Your task to perform on an android device: When is my next meeting? Image 0: 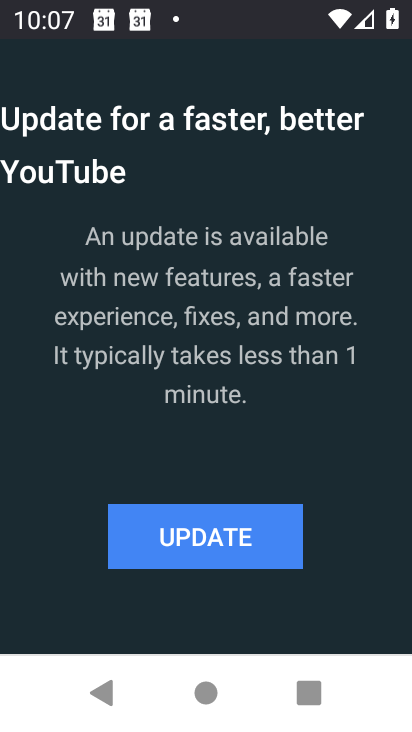
Step 0: press back button
Your task to perform on an android device: When is my next meeting? Image 1: 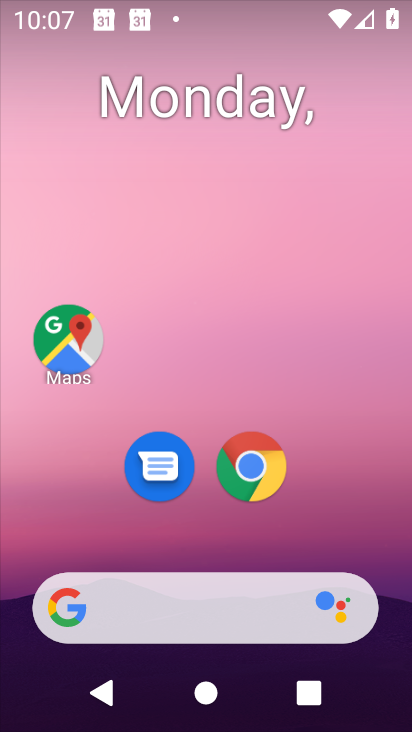
Step 1: drag from (322, 552) to (195, 100)
Your task to perform on an android device: When is my next meeting? Image 2: 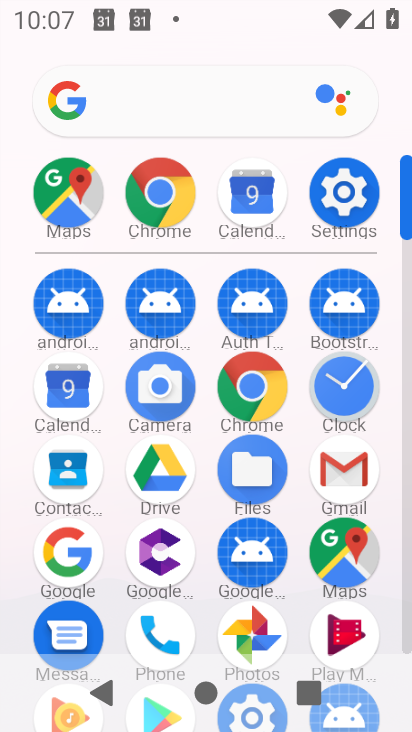
Step 2: click (58, 389)
Your task to perform on an android device: When is my next meeting? Image 3: 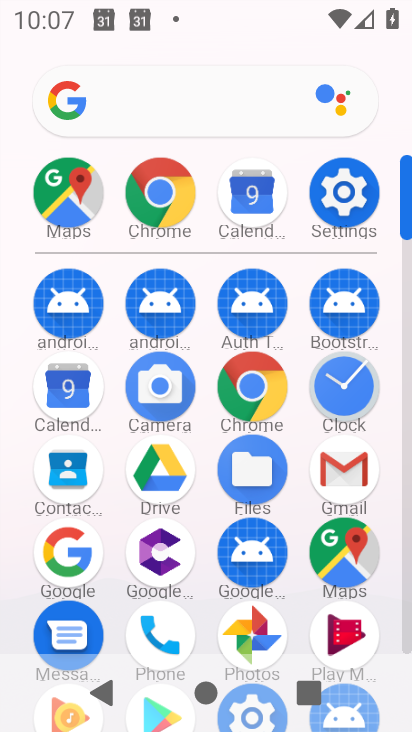
Step 3: click (59, 387)
Your task to perform on an android device: When is my next meeting? Image 4: 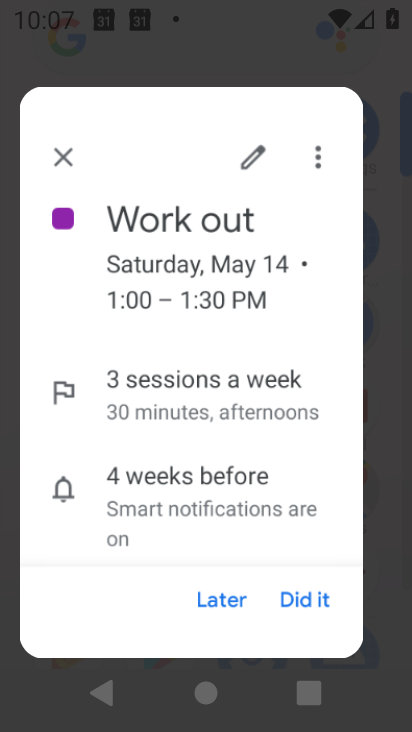
Step 4: click (72, 381)
Your task to perform on an android device: When is my next meeting? Image 5: 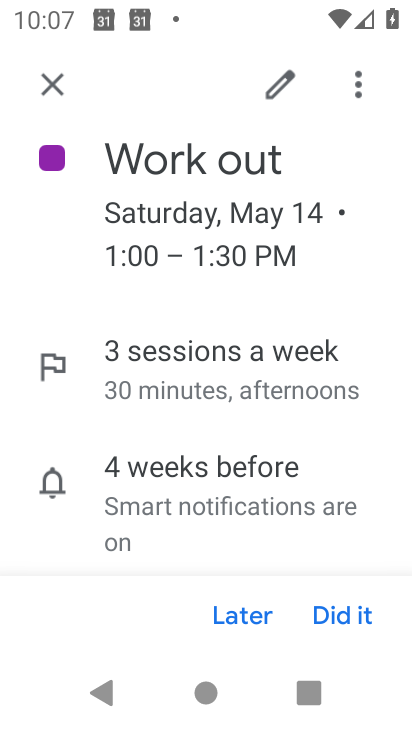
Step 5: click (57, 74)
Your task to perform on an android device: When is my next meeting? Image 6: 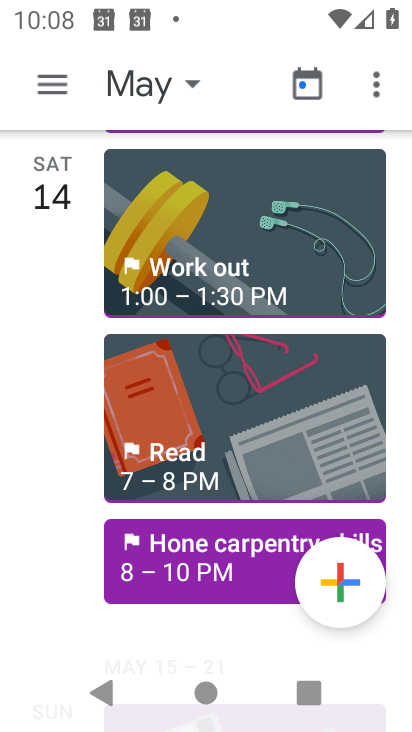
Step 6: click (184, 80)
Your task to perform on an android device: When is my next meeting? Image 7: 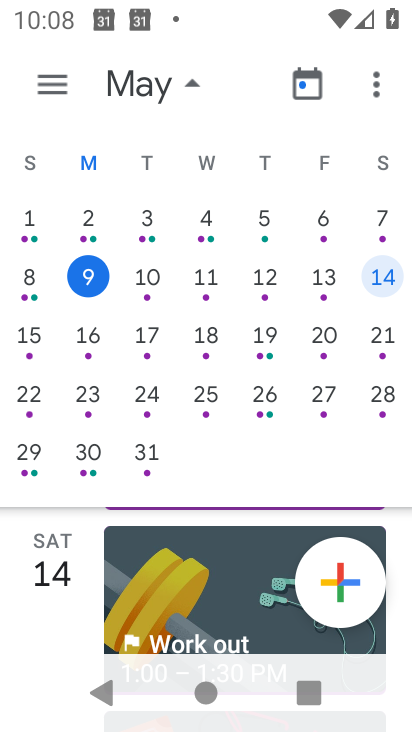
Step 7: task complete